Your task to perform on an android device: delete the emails in spam in the gmail app Image 0: 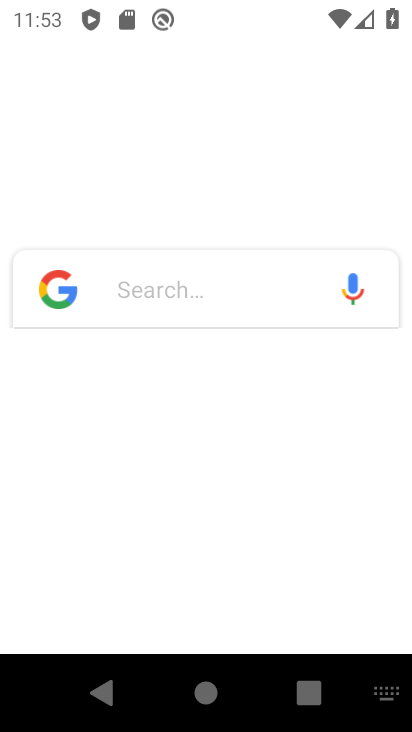
Step 0: press home button
Your task to perform on an android device: delete the emails in spam in the gmail app Image 1: 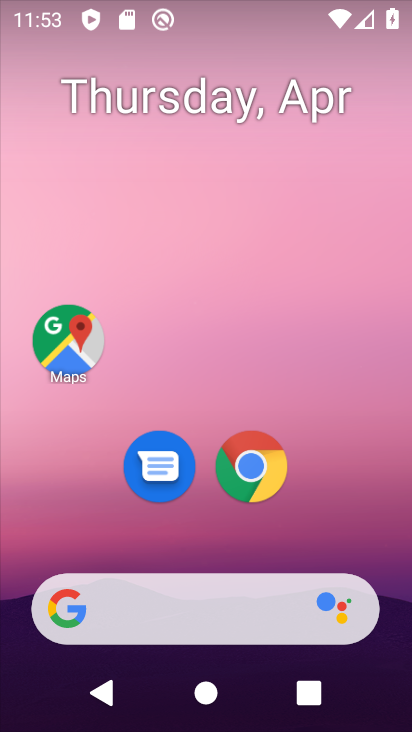
Step 1: drag from (355, 441) to (92, 15)
Your task to perform on an android device: delete the emails in spam in the gmail app Image 2: 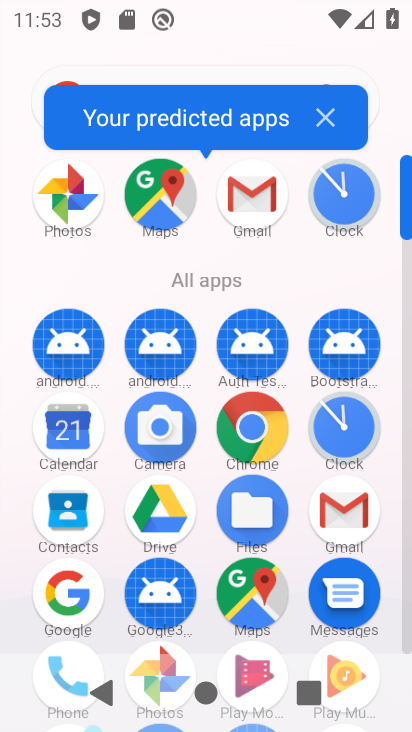
Step 2: click (246, 206)
Your task to perform on an android device: delete the emails in spam in the gmail app Image 3: 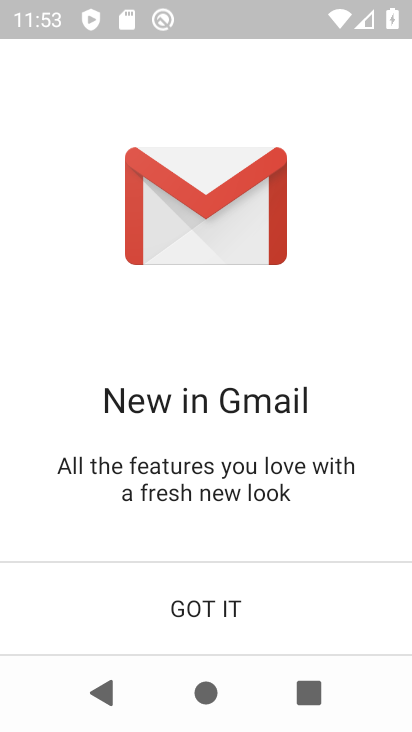
Step 3: click (210, 594)
Your task to perform on an android device: delete the emails in spam in the gmail app Image 4: 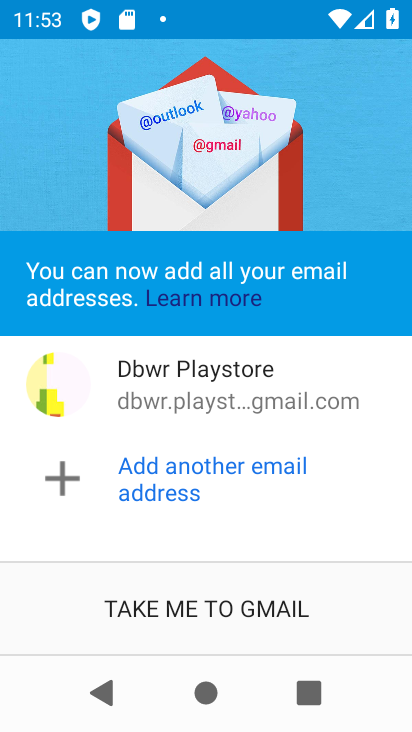
Step 4: click (198, 617)
Your task to perform on an android device: delete the emails in spam in the gmail app Image 5: 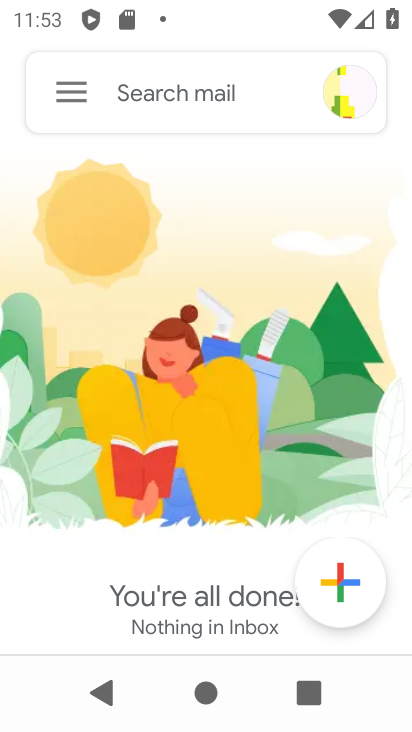
Step 5: click (64, 93)
Your task to perform on an android device: delete the emails in spam in the gmail app Image 6: 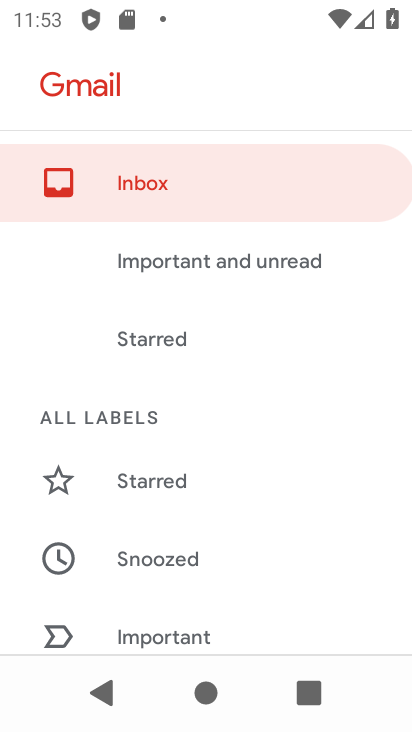
Step 6: drag from (181, 567) to (184, 143)
Your task to perform on an android device: delete the emails in spam in the gmail app Image 7: 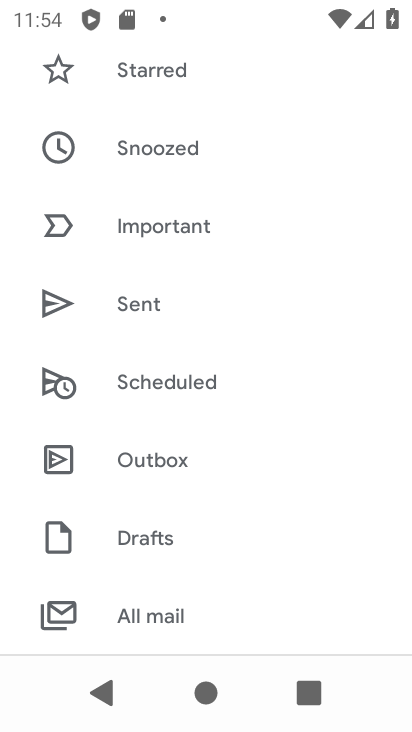
Step 7: drag from (140, 576) to (137, 260)
Your task to perform on an android device: delete the emails in spam in the gmail app Image 8: 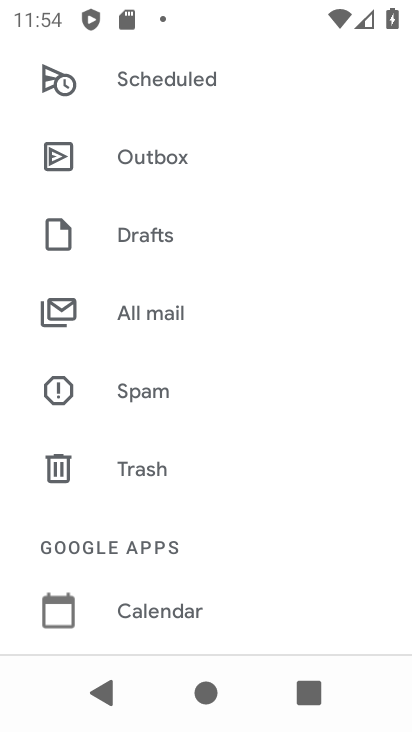
Step 8: click (133, 391)
Your task to perform on an android device: delete the emails in spam in the gmail app Image 9: 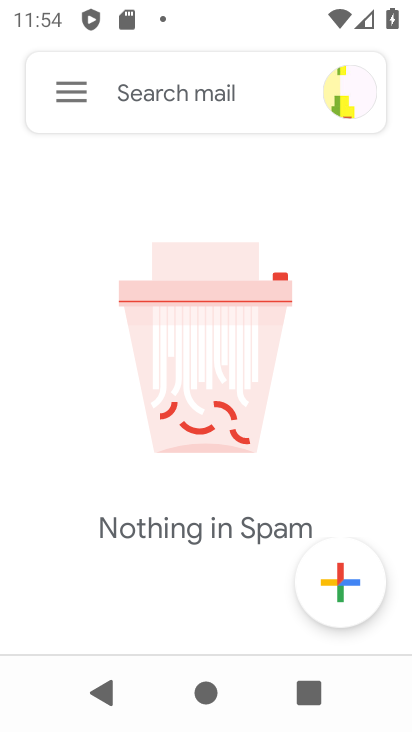
Step 9: task complete